Your task to perform on an android device: What's the weather today? Image 0: 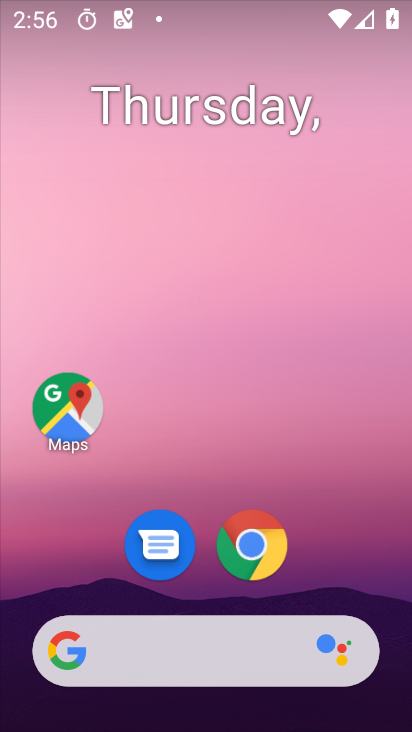
Step 0: drag from (212, 720) to (212, 154)
Your task to perform on an android device: What's the weather today? Image 1: 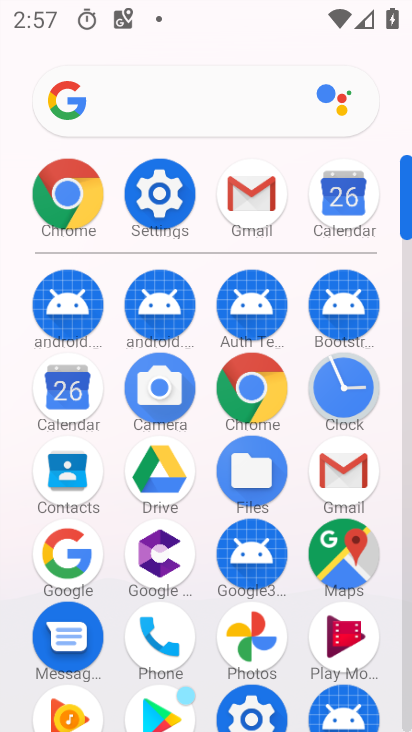
Step 1: click (69, 556)
Your task to perform on an android device: What's the weather today? Image 2: 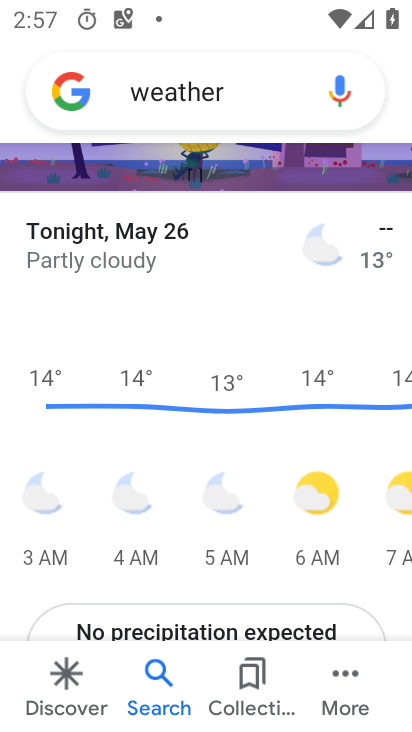
Step 2: drag from (163, 265) to (162, 532)
Your task to perform on an android device: What's the weather today? Image 3: 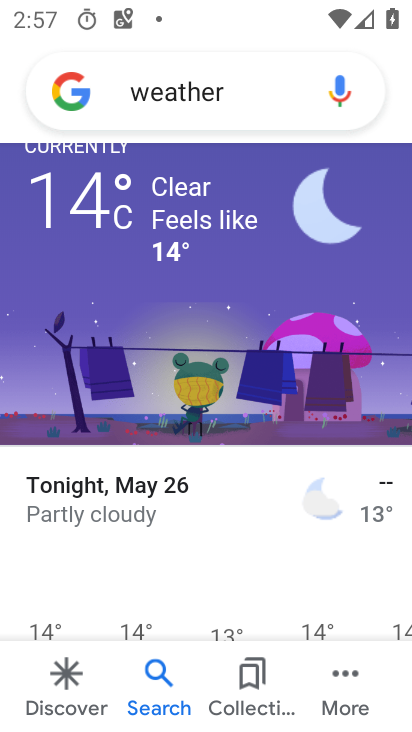
Step 3: drag from (112, 201) to (116, 451)
Your task to perform on an android device: What's the weather today? Image 4: 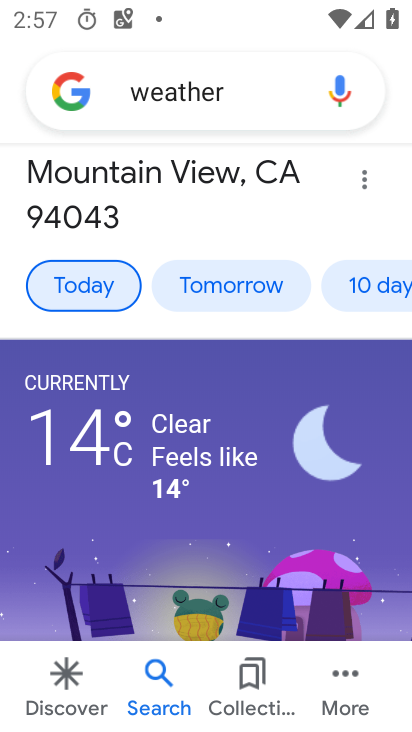
Step 4: click (90, 278)
Your task to perform on an android device: What's the weather today? Image 5: 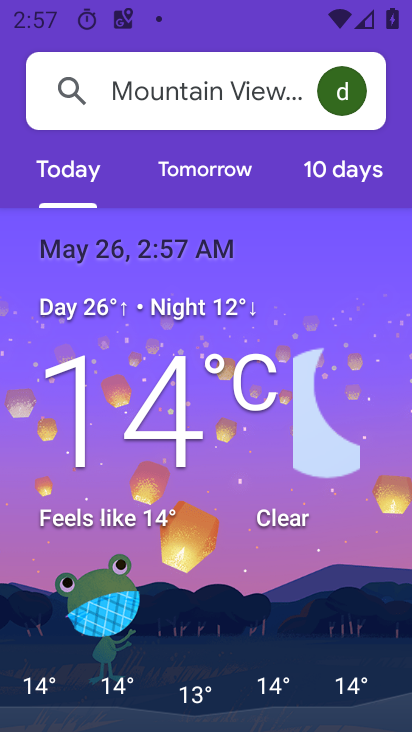
Step 5: task complete